Your task to perform on an android device: turn off location Image 0: 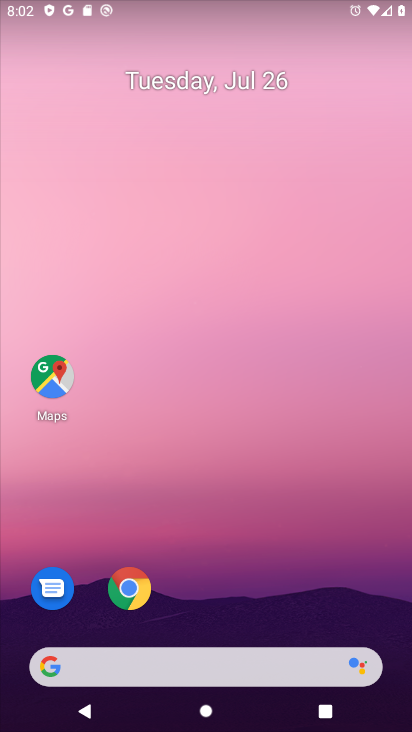
Step 0: drag from (158, 587) to (177, 76)
Your task to perform on an android device: turn off location Image 1: 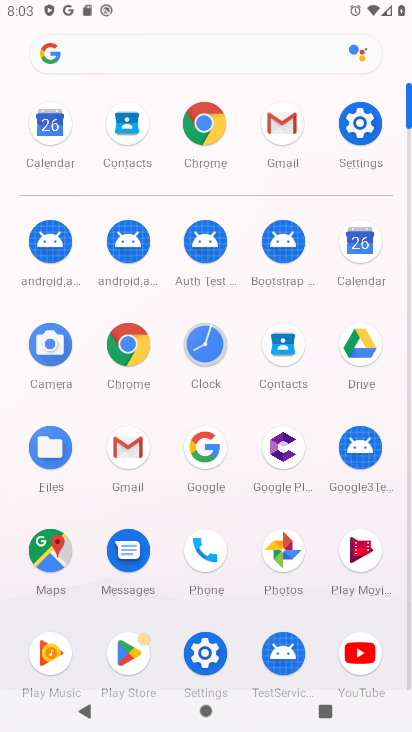
Step 1: click (355, 153)
Your task to perform on an android device: turn off location Image 2: 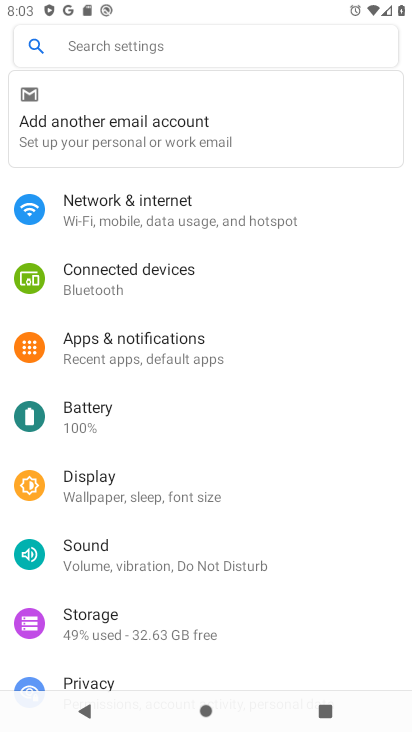
Step 2: drag from (183, 577) to (182, 154)
Your task to perform on an android device: turn off location Image 3: 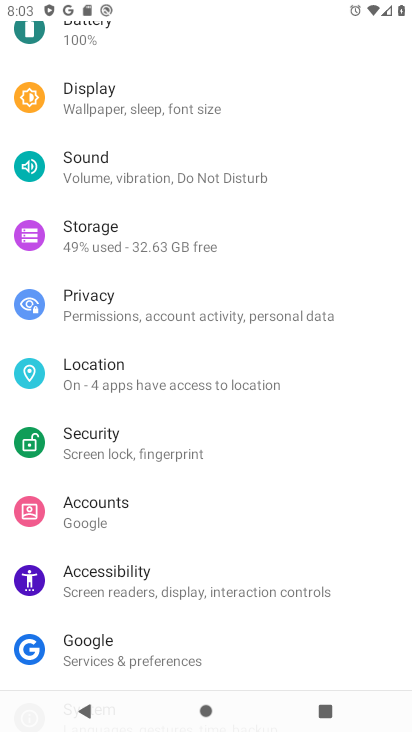
Step 3: click (135, 361)
Your task to perform on an android device: turn off location Image 4: 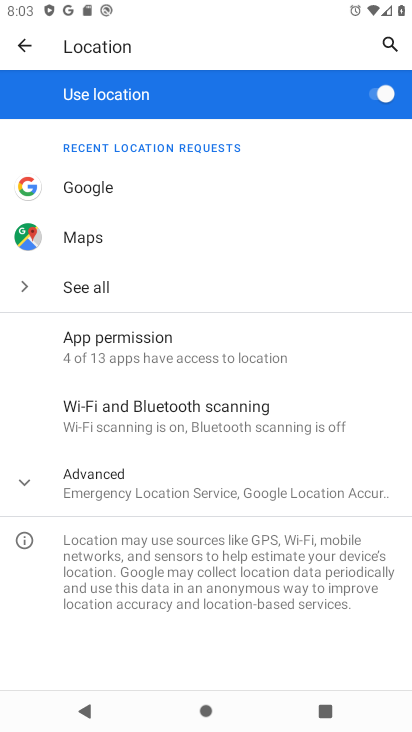
Step 4: click (377, 95)
Your task to perform on an android device: turn off location Image 5: 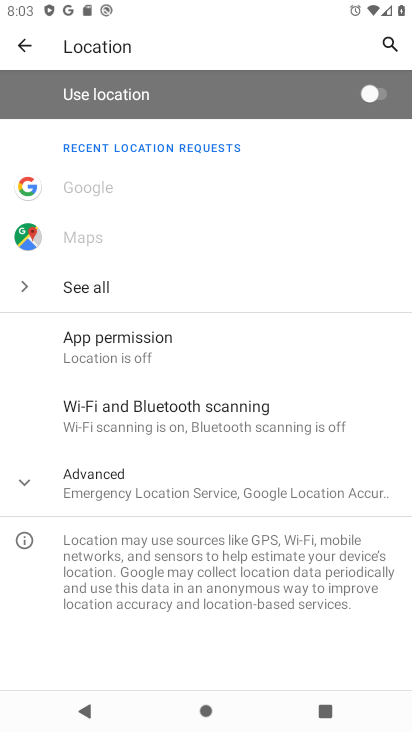
Step 5: task complete